Your task to perform on an android device: set an alarm Image 0: 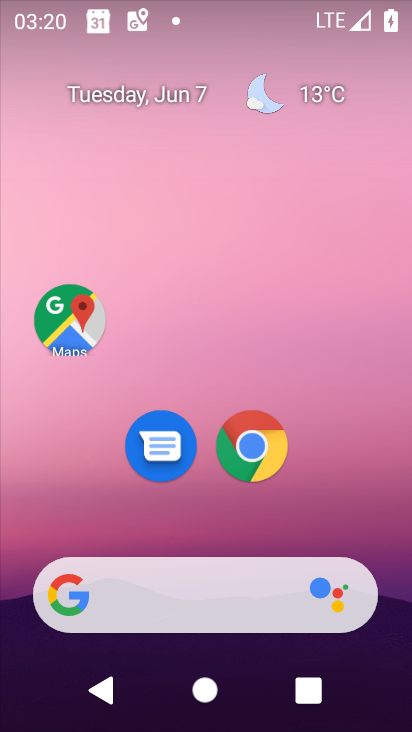
Step 0: drag from (274, 655) to (301, 11)
Your task to perform on an android device: set an alarm Image 1: 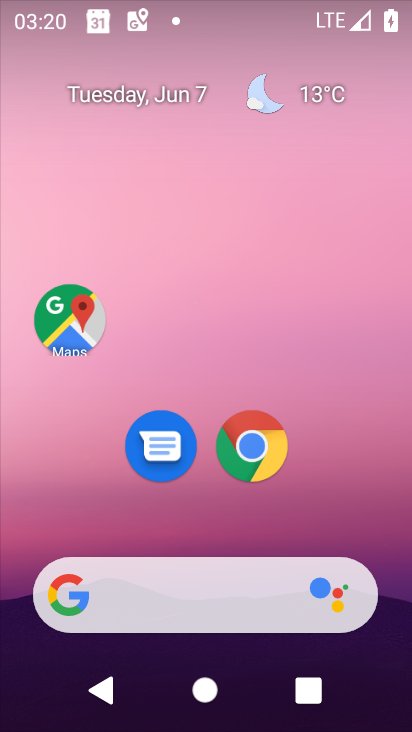
Step 1: drag from (234, 608) to (226, 108)
Your task to perform on an android device: set an alarm Image 2: 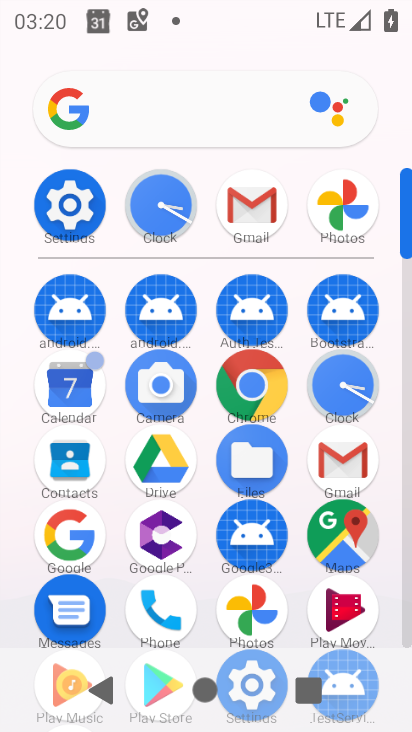
Step 2: click (167, 219)
Your task to perform on an android device: set an alarm Image 3: 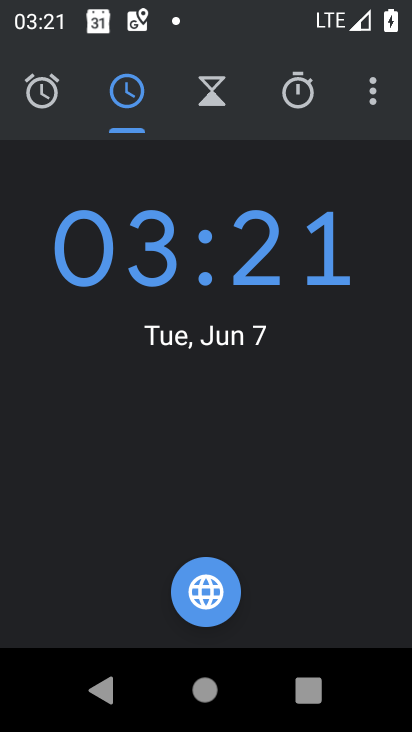
Step 3: click (51, 91)
Your task to perform on an android device: set an alarm Image 4: 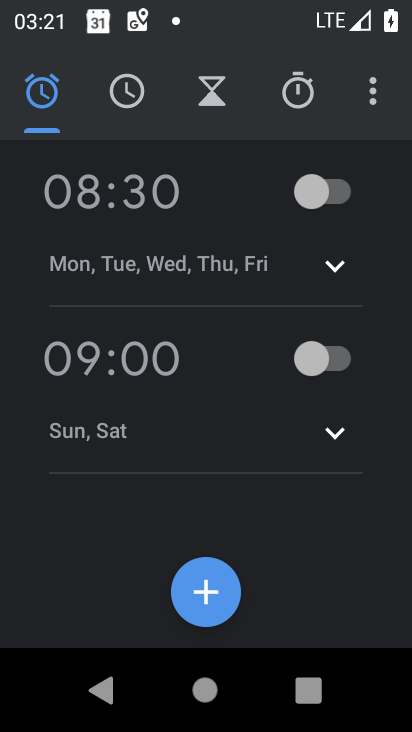
Step 4: click (229, 601)
Your task to perform on an android device: set an alarm Image 5: 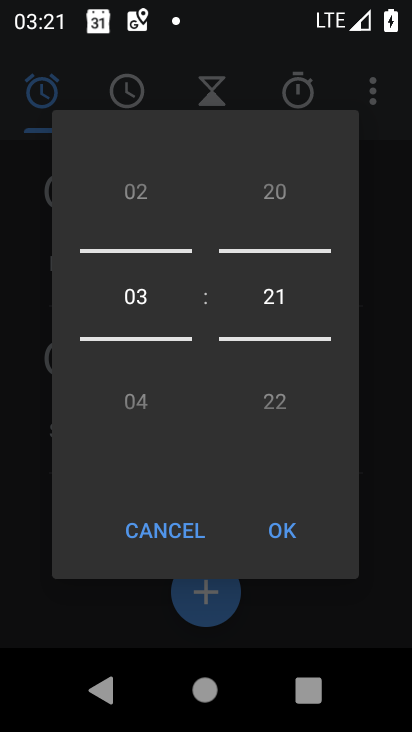
Step 5: click (276, 539)
Your task to perform on an android device: set an alarm Image 6: 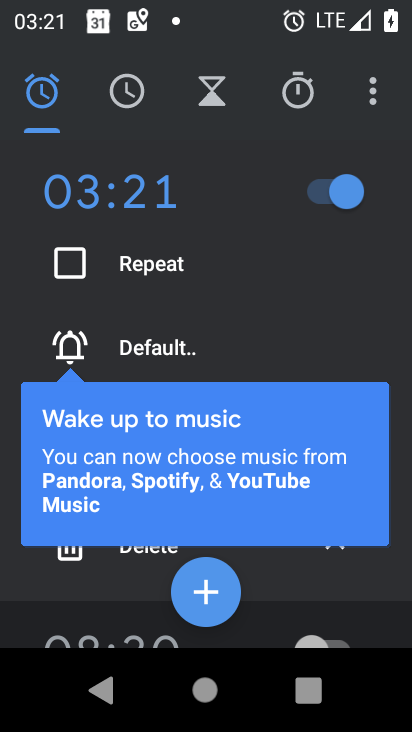
Step 6: task complete